Your task to perform on an android device: Open maps Image 0: 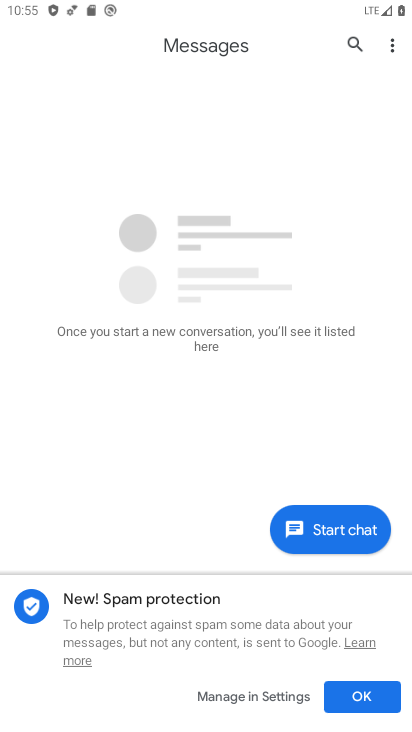
Step 0: press home button
Your task to perform on an android device: Open maps Image 1: 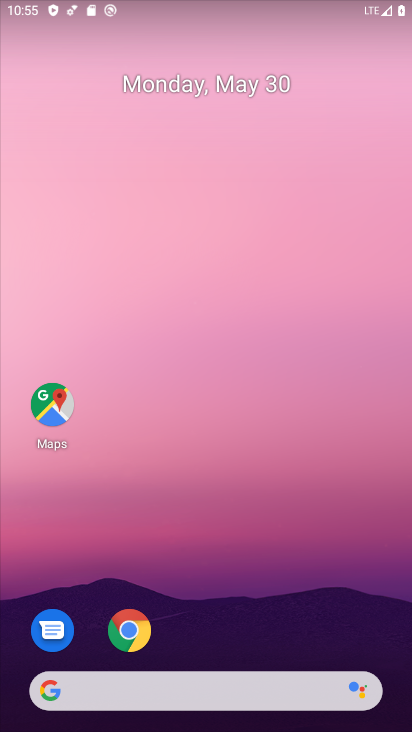
Step 1: click (58, 391)
Your task to perform on an android device: Open maps Image 2: 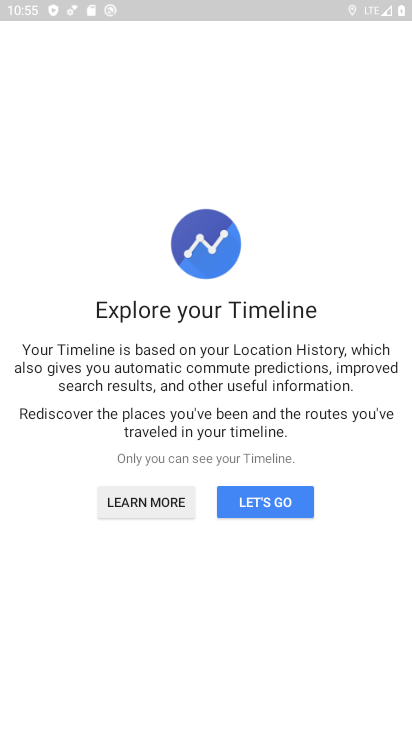
Step 2: task complete